Your task to perform on an android device: turn off notifications in google photos Image 0: 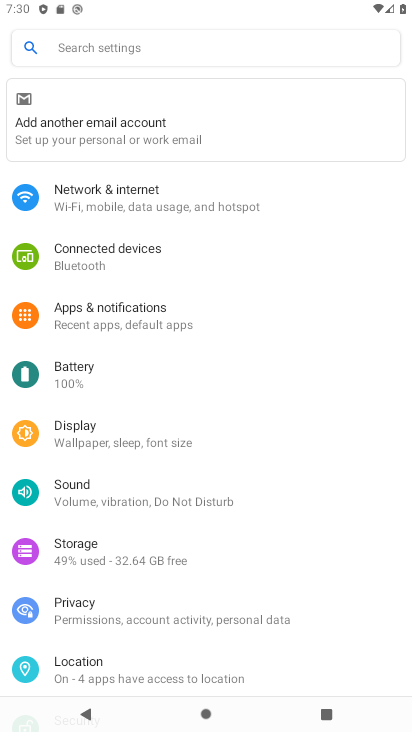
Step 0: click (143, 306)
Your task to perform on an android device: turn off notifications in google photos Image 1: 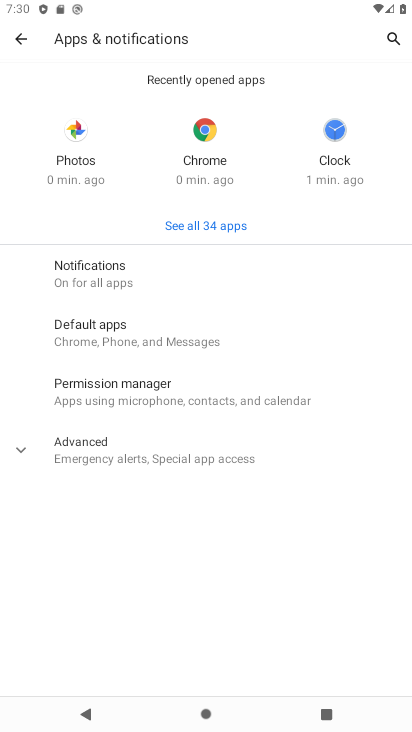
Step 1: click (67, 160)
Your task to perform on an android device: turn off notifications in google photos Image 2: 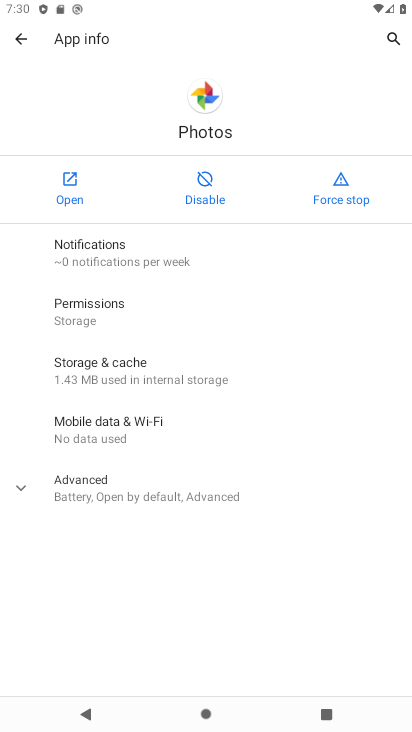
Step 2: click (100, 242)
Your task to perform on an android device: turn off notifications in google photos Image 3: 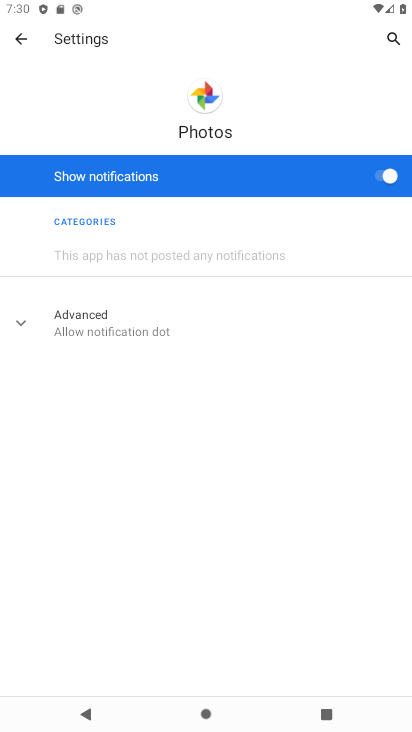
Step 3: click (382, 175)
Your task to perform on an android device: turn off notifications in google photos Image 4: 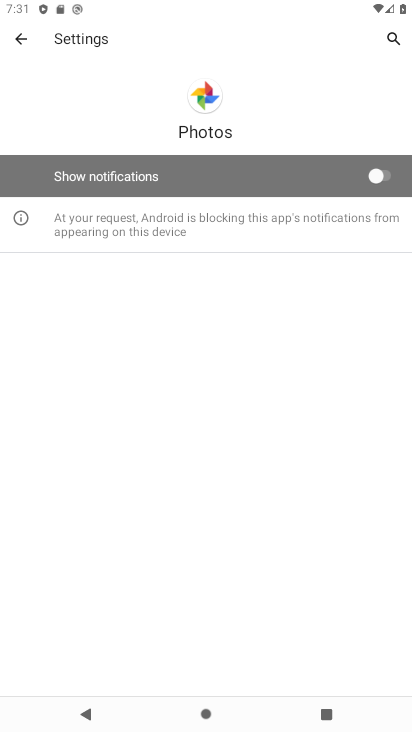
Step 4: task complete